Your task to perform on an android device: see tabs open on other devices in the chrome app Image 0: 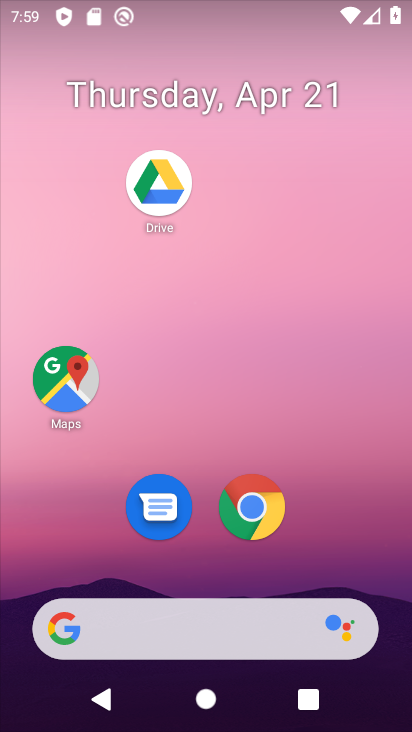
Step 0: drag from (351, 568) to (351, 83)
Your task to perform on an android device: see tabs open on other devices in the chrome app Image 1: 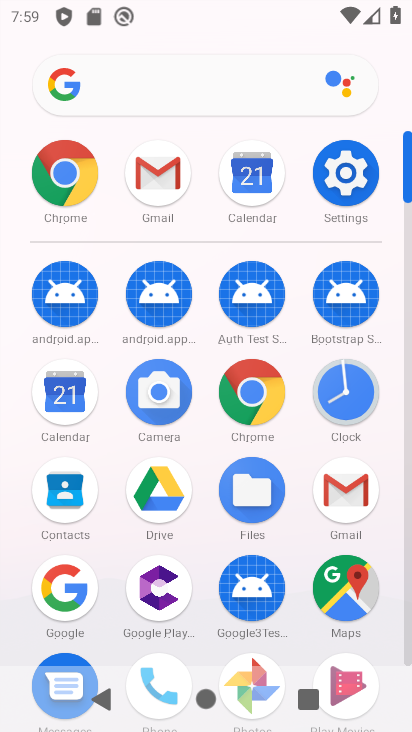
Step 1: click (267, 398)
Your task to perform on an android device: see tabs open on other devices in the chrome app Image 2: 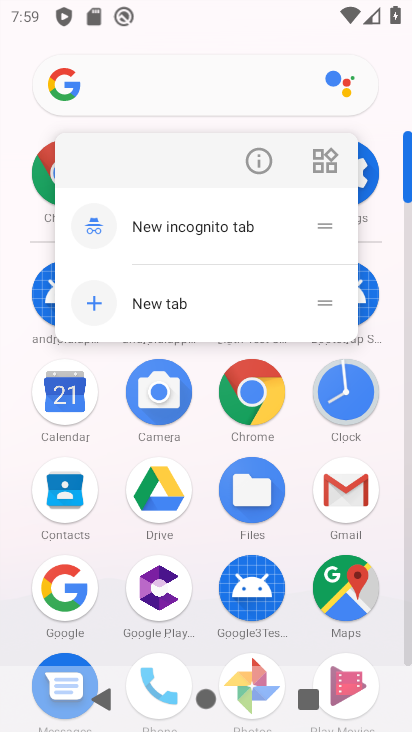
Step 2: click (267, 398)
Your task to perform on an android device: see tabs open on other devices in the chrome app Image 3: 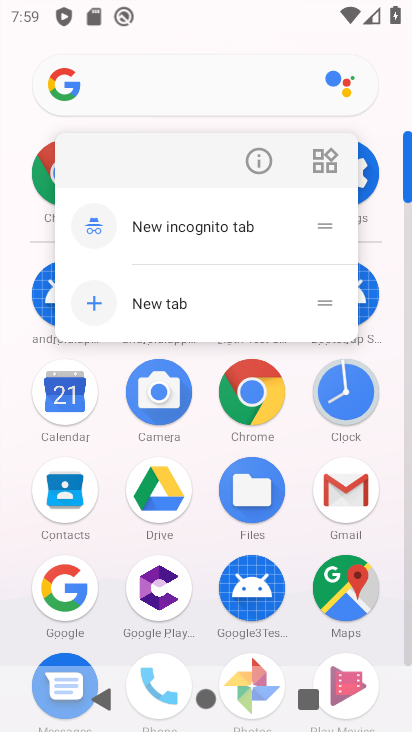
Step 3: click (268, 399)
Your task to perform on an android device: see tabs open on other devices in the chrome app Image 4: 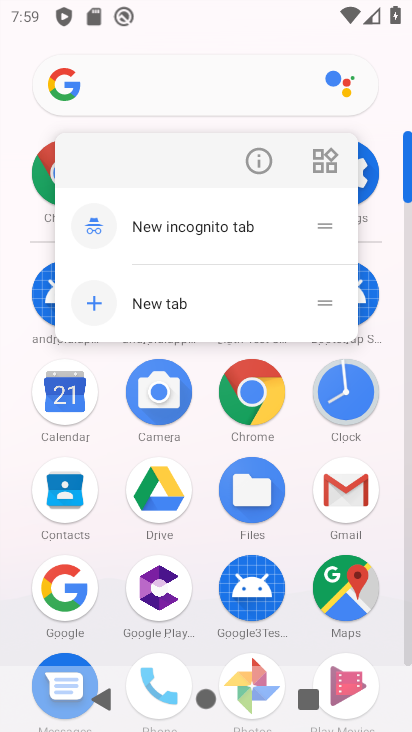
Step 4: click (269, 400)
Your task to perform on an android device: see tabs open on other devices in the chrome app Image 5: 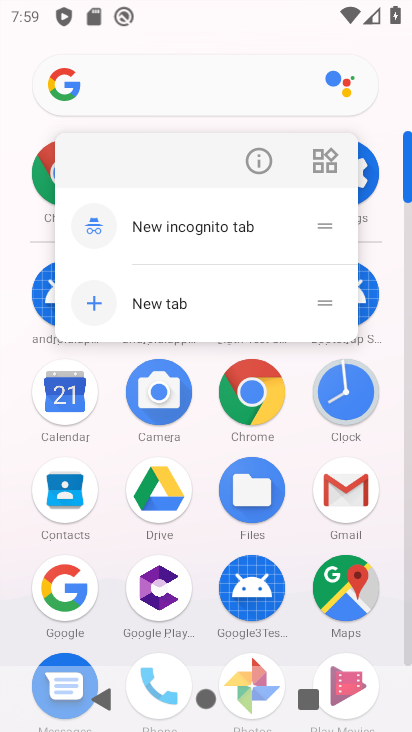
Step 5: click (249, 393)
Your task to perform on an android device: see tabs open on other devices in the chrome app Image 6: 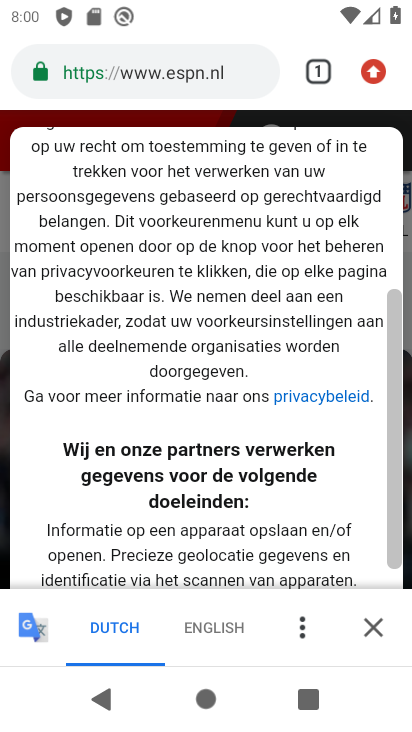
Step 6: click (375, 76)
Your task to perform on an android device: see tabs open on other devices in the chrome app Image 7: 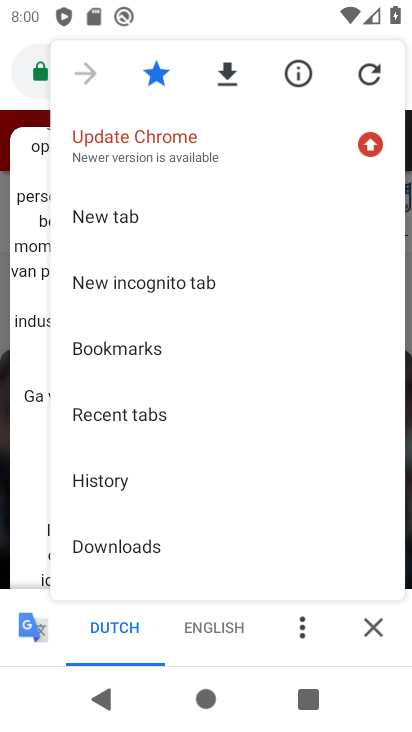
Step 7: drag from (308, 458) to (295, 276)
Your task to perform on an android device: see tabs open on other devices in the chrome app Image 8: 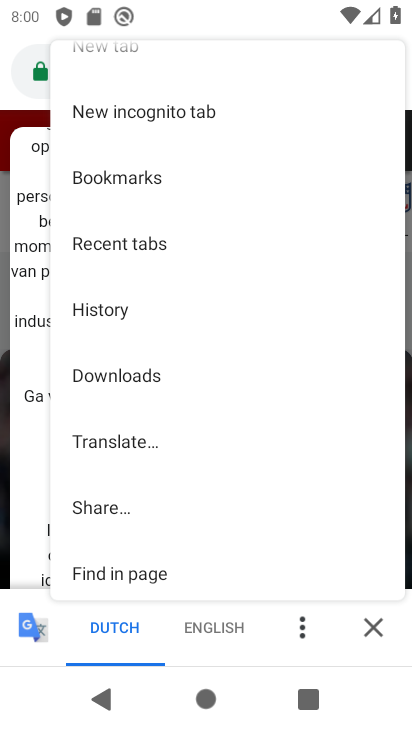
Step 8: click (130, 238)
Your task to perform on an android device: see tabs open on other devices in the chrome app Image 9: 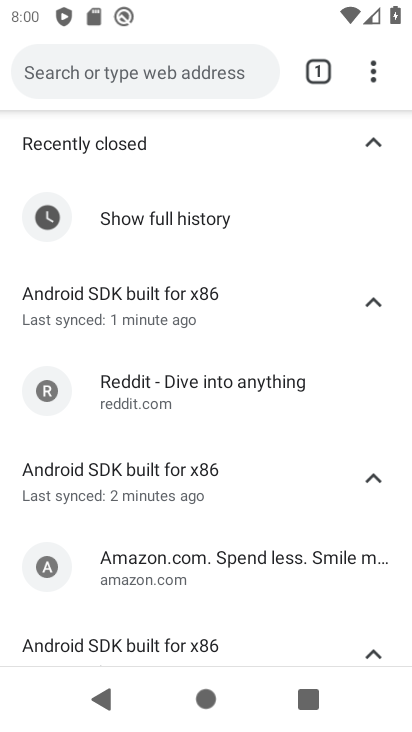
Step 9: click (316, 63)
Your task to perform on an android device: see tabs open on other devices in the chrome app Image 10: 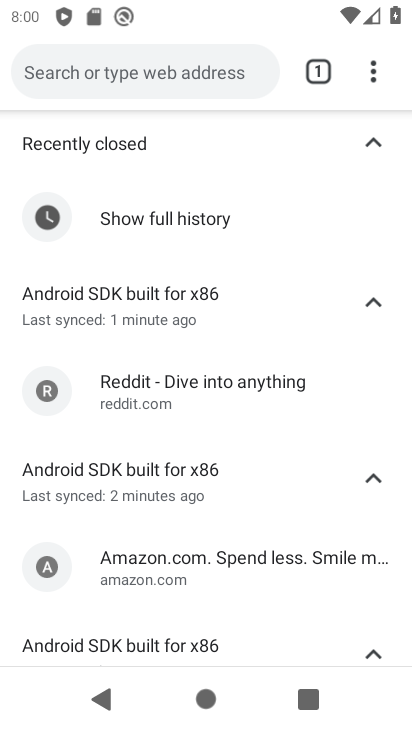
Step 10: task complete